Your task to perform on an android device: Open Youtube and go to the subscriptions tab Image 0: 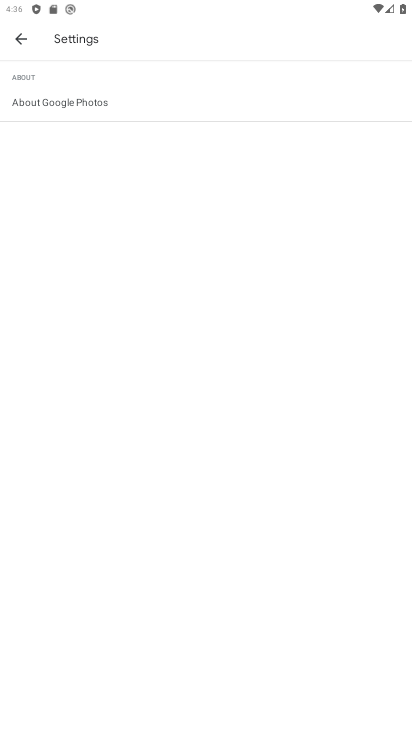
Step 0: press back button
Your task to perform on an android device: Open Youtube and go to the subscriptions tab Image 1: 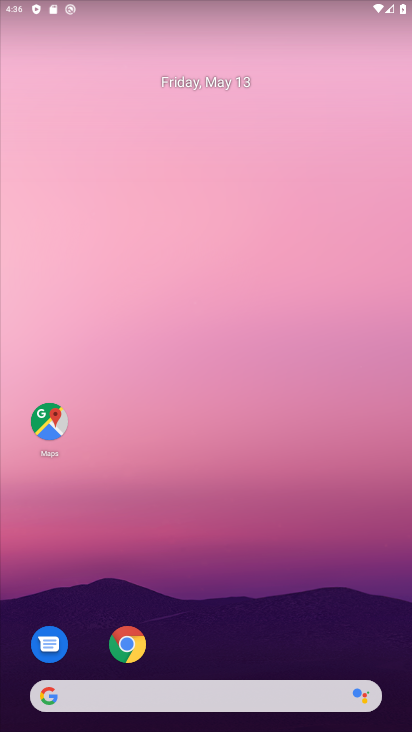
Step 1: drag from (216, 645) to (302, 127)
Your task to perform on an android device: Open Youtube and go to the subscriptions tab Image 2: 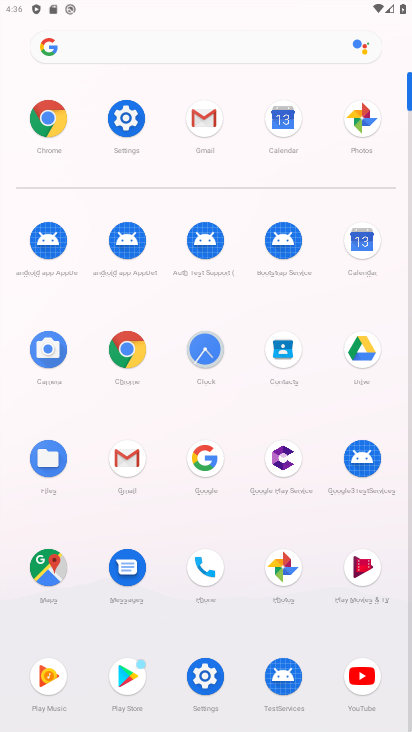
Step 2: click (376, 680)
Your task to perform on an android device: Open Youtube and go to the subscriptions tab Image 3: 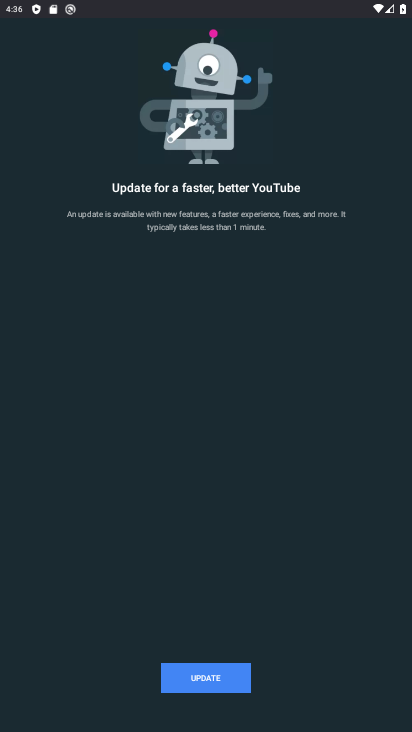
Step 3: click (216, 675)
Your task to perform on an android device: Open Youtube and go to the subscriptions tab Image 4: 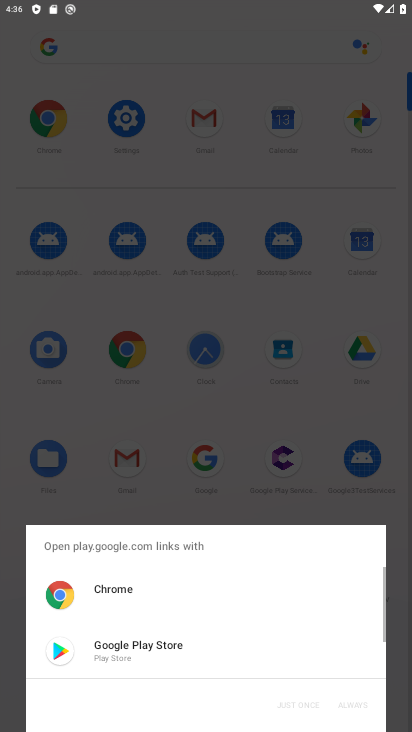
Step 4: click (197, 643)
Your task to perform on an android device: Open Youtube and go to the subscriptions tab Image 5: 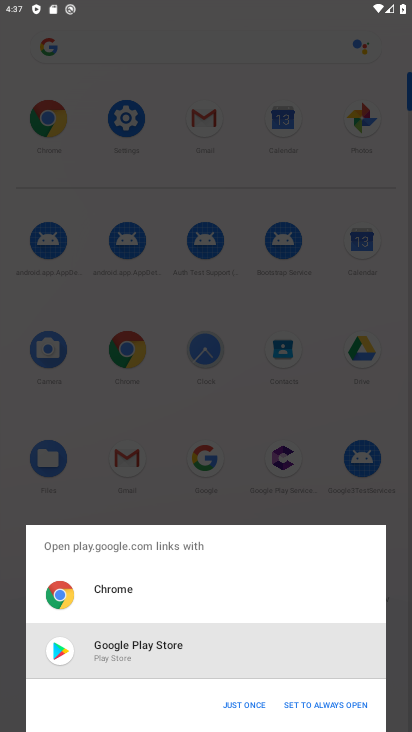
Step 5: click (241, 706)
Your task to perform on an android device: Open Youtube and go to the subscriptions tab Image 6: 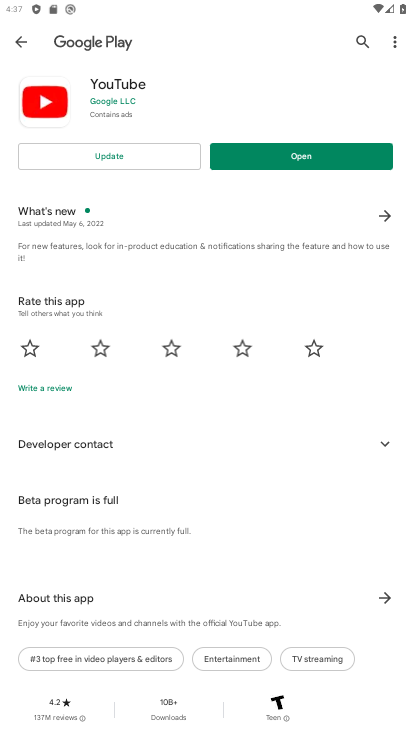
Step 6: click (285, 154)
Your task to perform on an android device: Open Youtube and go to the subscriptions tab Image 7: 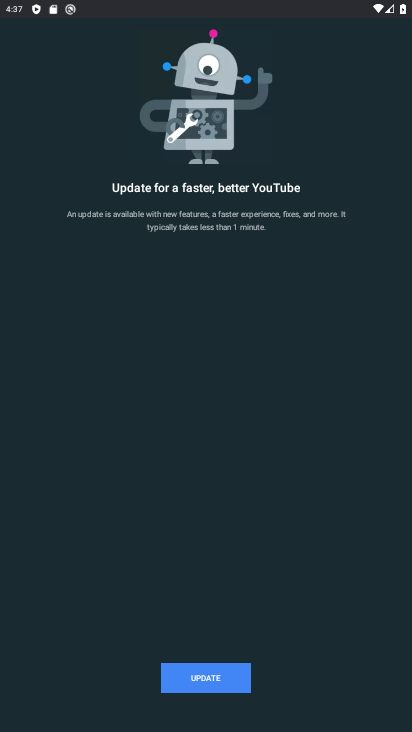
Step 7: click (190, 681)
Your task to perform on an android device: Open Youtube and go to the subscriptions tab Image 8: 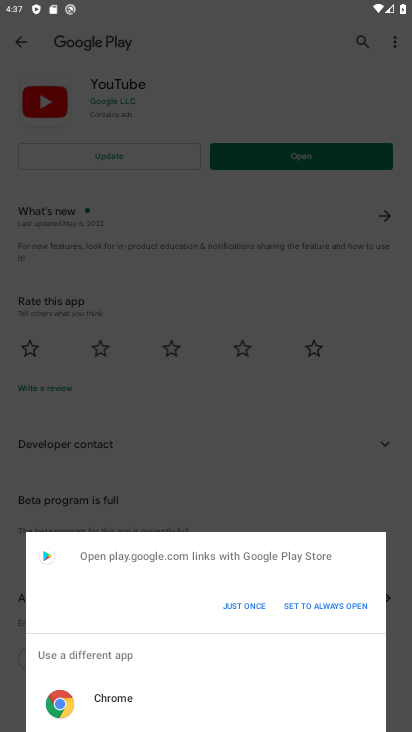
Step 8: click (234, 605)
Your task to perform on an android device: Open Youtube and go to the subscriptions tab Image 9: 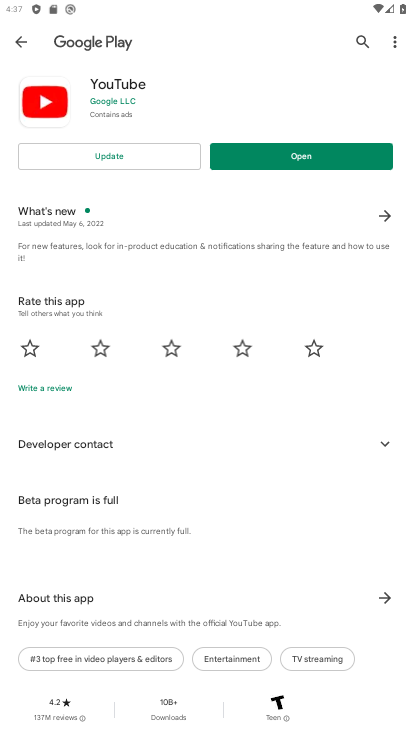
Step 9: click (121, 159)
Your task to perform on an android device: Open Youtube and go to the subscriptions tab Image 10: 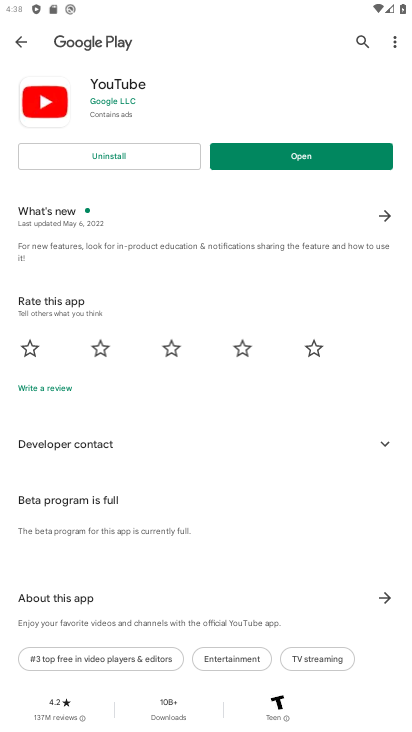
Step 10: click (309, 152)
Your task to perform on an android device: Open Youtube and go to the subscriptions tab Image 11: 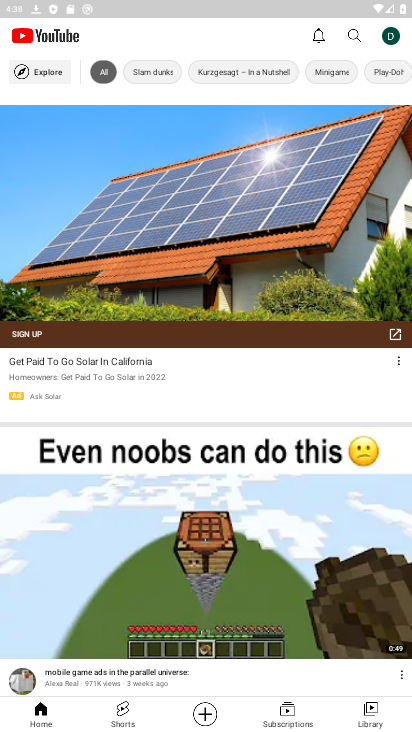
Step 11: click (280, 717)
Your task to perform on an android device: Open Youtube and go to the subscriptions tab Image 12: 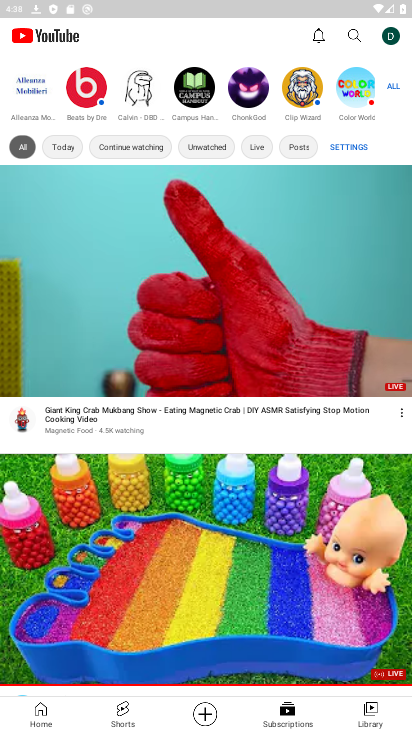
Step 12: task complete